Your task to perform on an android device: turn vacation reply on in the gmail app Image 0: 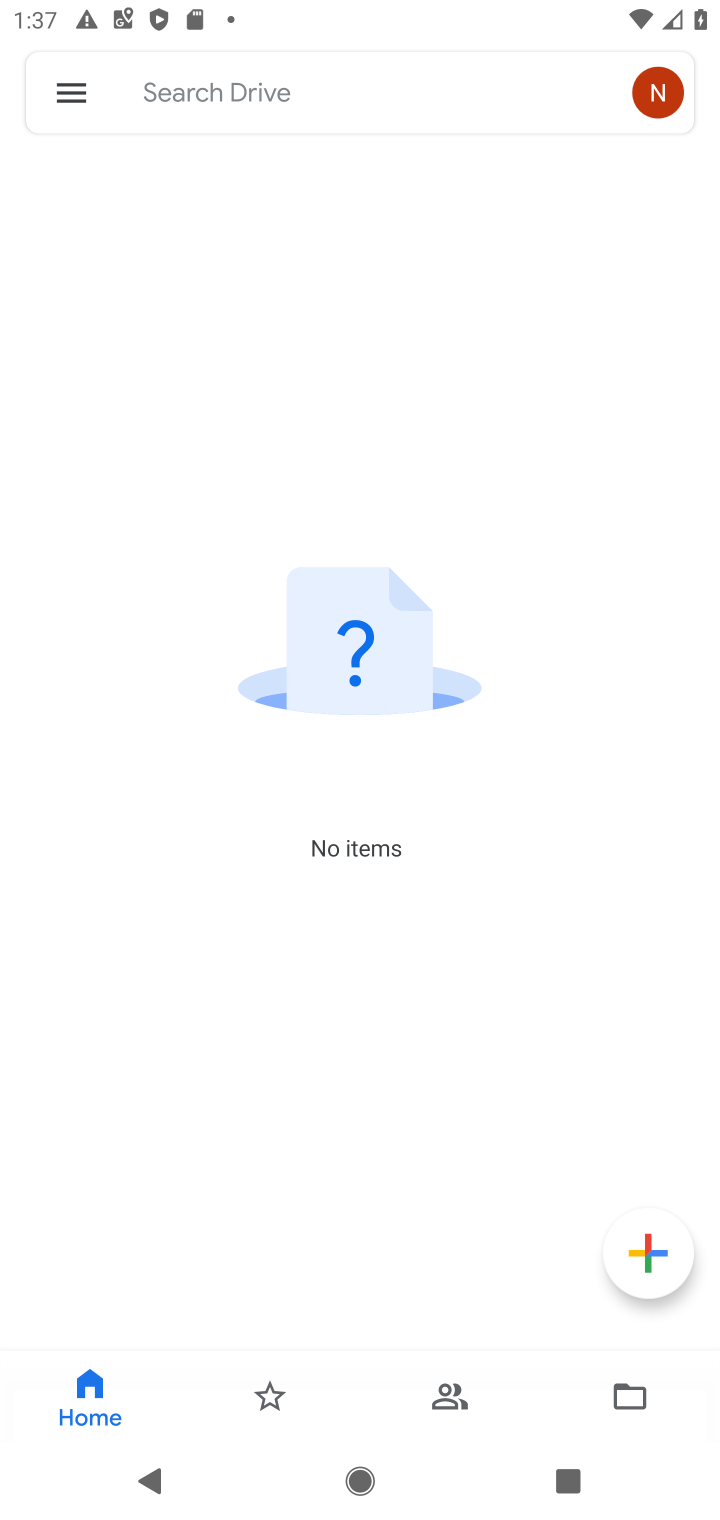
Step 0: press home button
Your task to perform on an android device: turn vacation reply on in the gmail app Image 1: 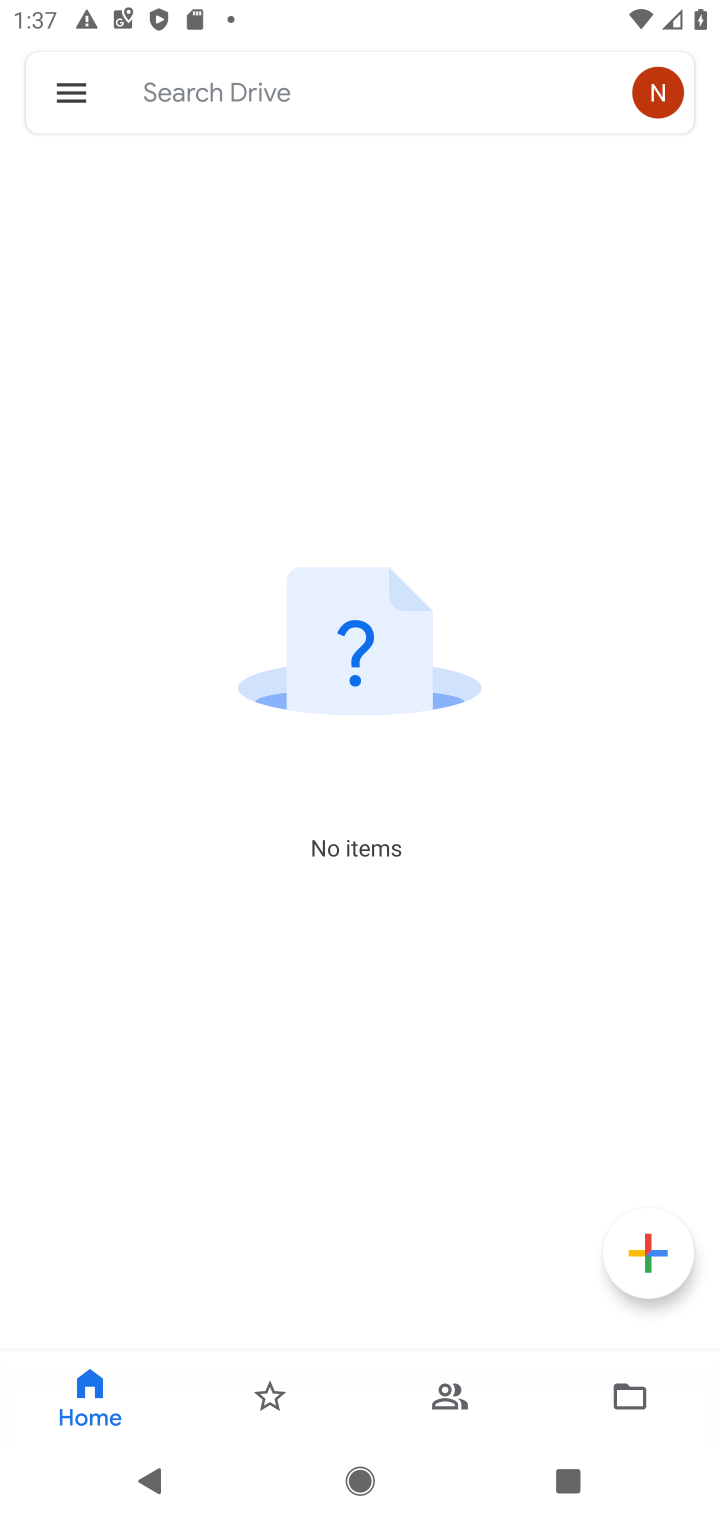
Step 1: press home button
Your task to perform on an android device: turn vacation reply on in the gmail app Image 2: 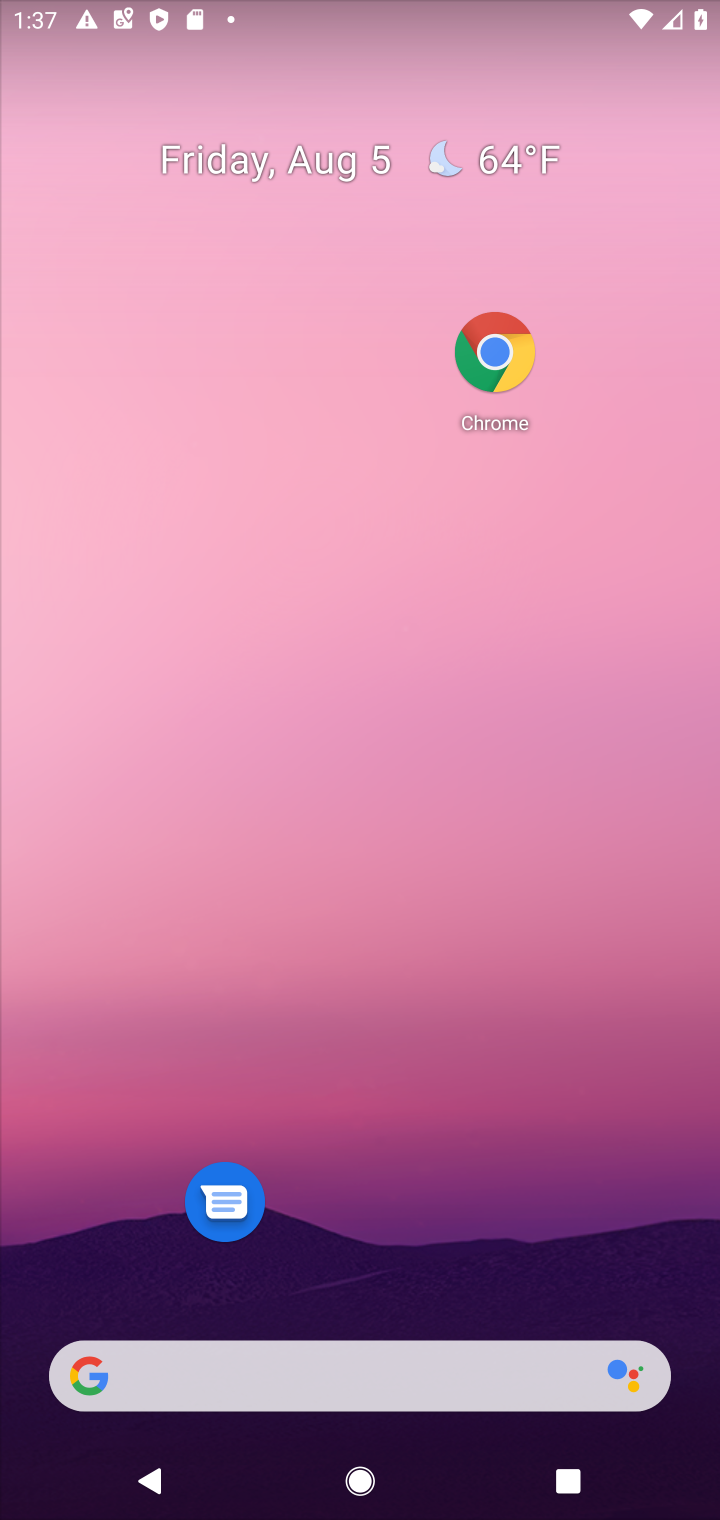
Step 2: drag from (629, 1238) to (329, 320)
Your task to perform on an android device: turn vacation reply on in the gmail app Image 3: 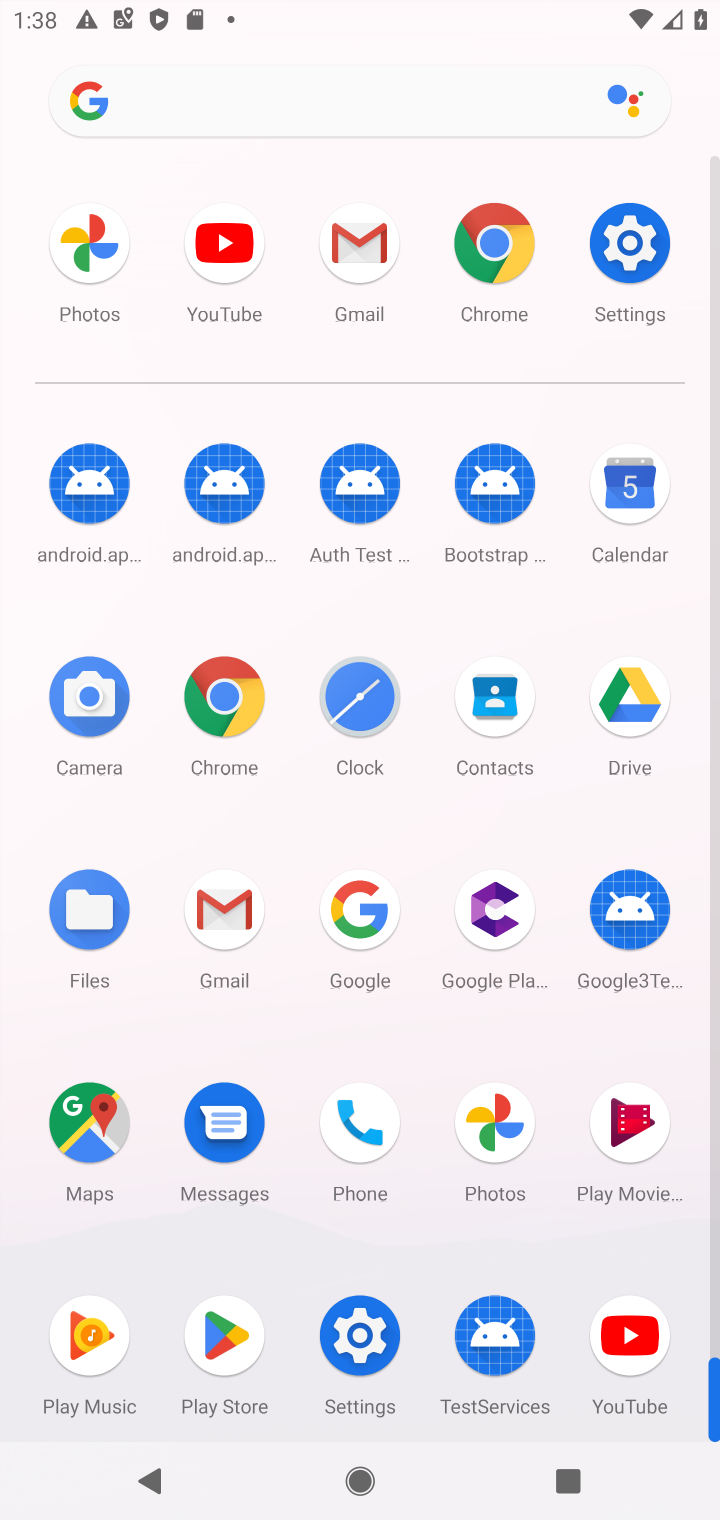
Step 3: click (225, 906)
Your task to perform on an android device: turn vacation reply on in the gmail app Image 4: 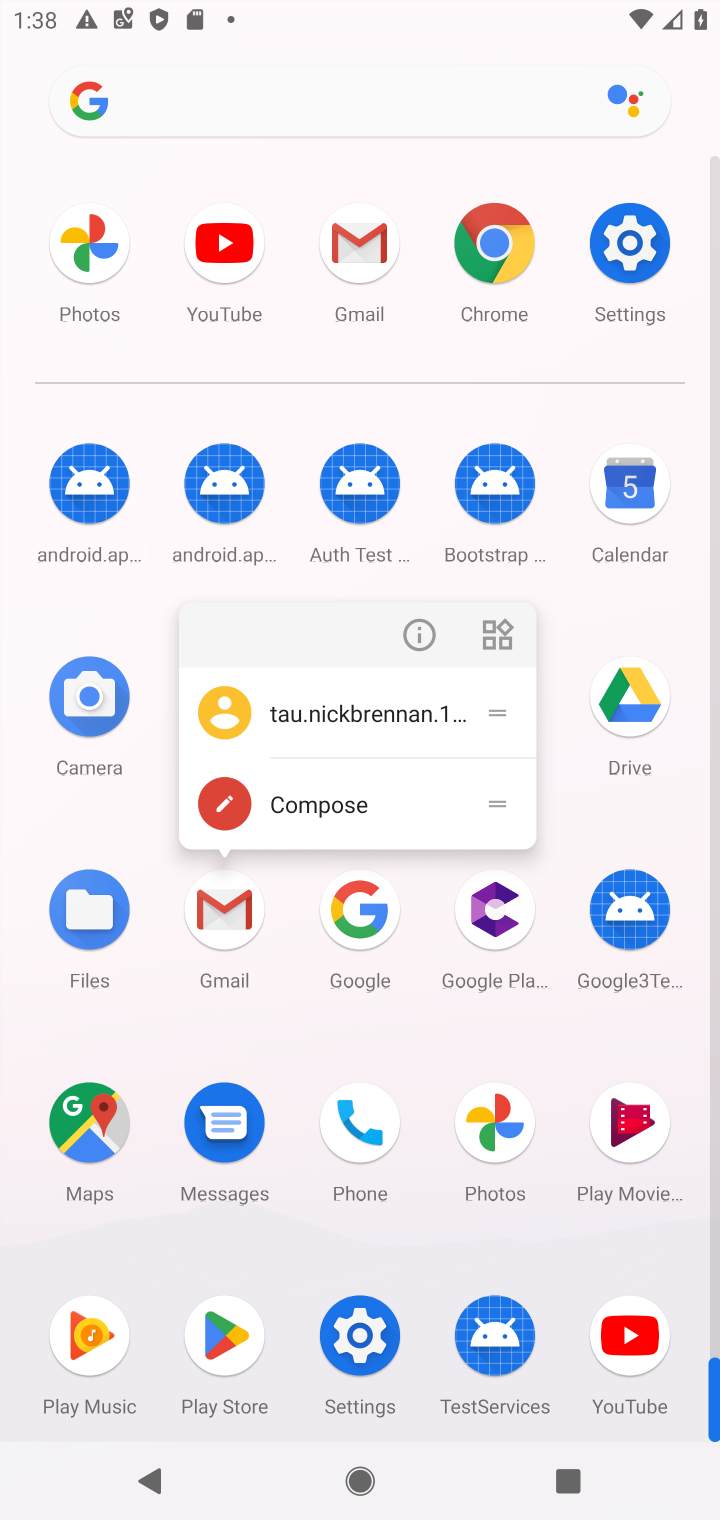
Step 4: click (225, 913)
Your task to perform on an android device: turn vacation reply on in the gmail app Image 5: 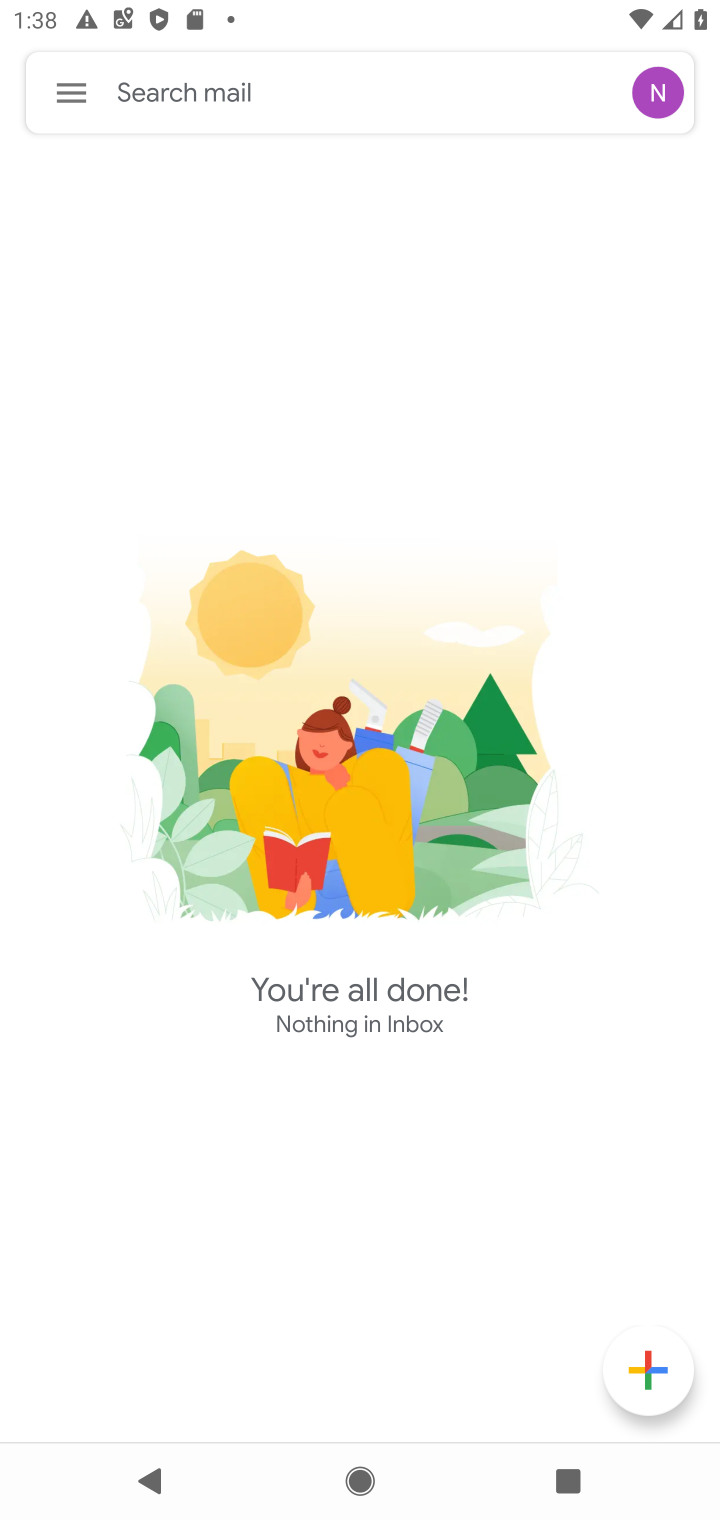
Step 5: click (62, 77)
Your task to perform on an android device: turn vacation reply on in the gmail app Image 6: 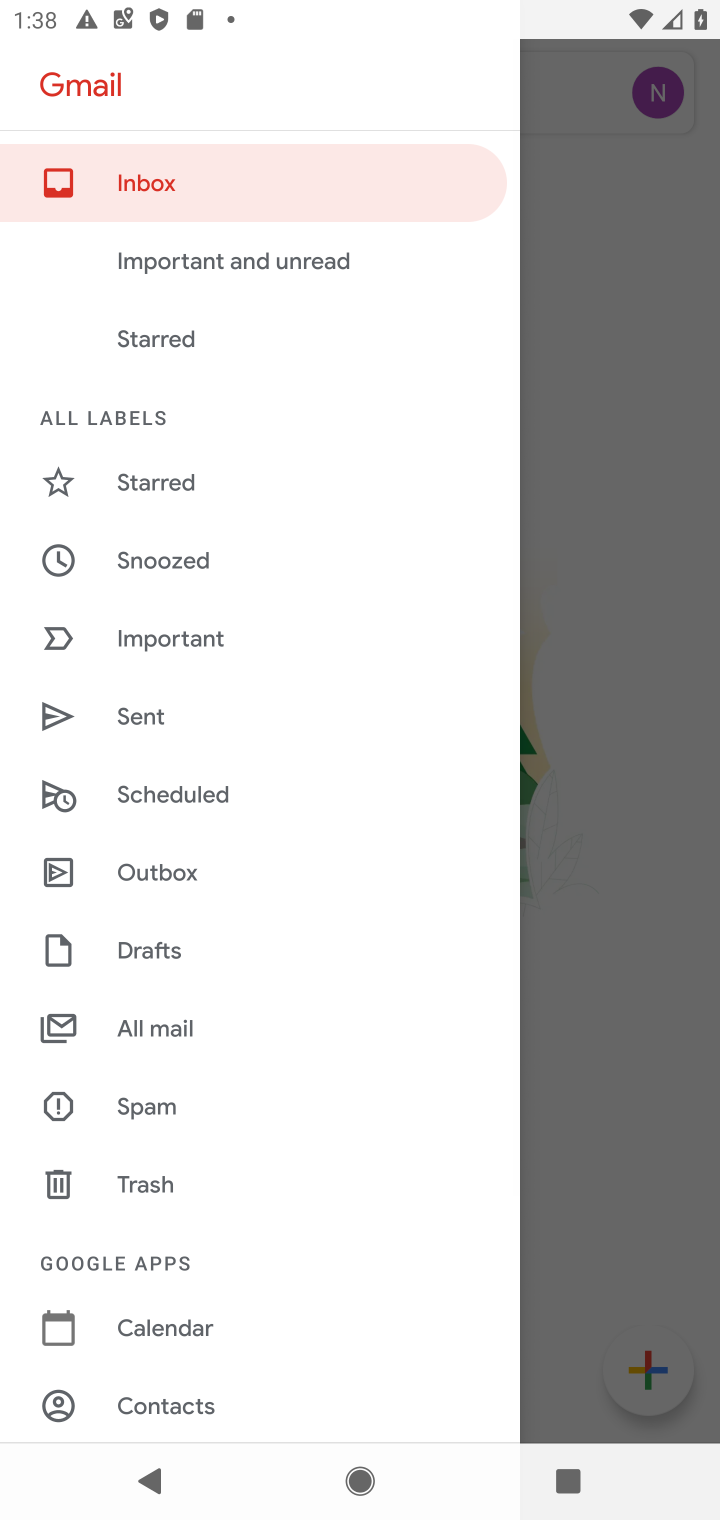
Step 6: drag from (238, 1307) to (248, 205)
Your task to perform on an android device: turn vacation reply on in the gmail app Image 7: 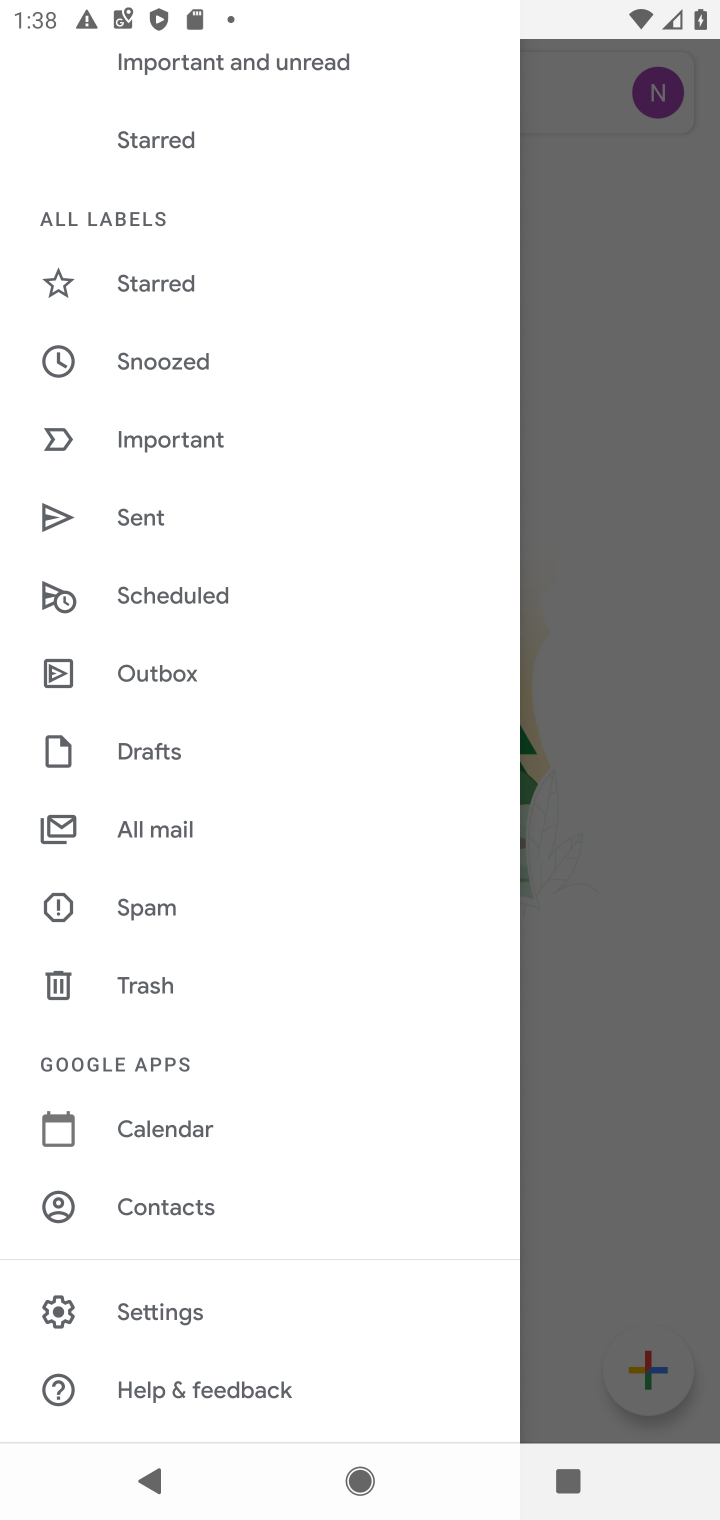
Step 7: click (132, 1305)
Your task to perform on an android device: turn vacation reply on in the gmail app Image 8: 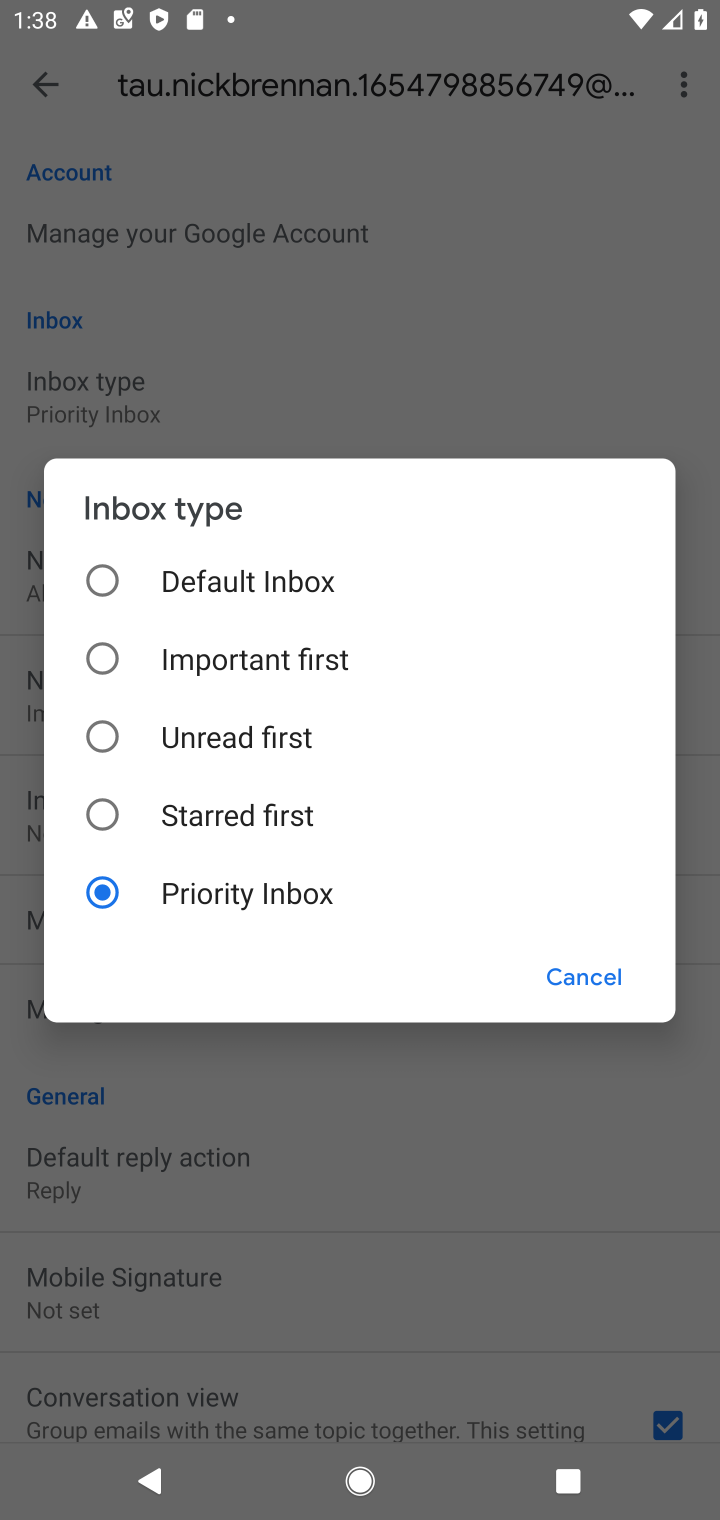
Step 8: task complete